Your task to perform on an android device: What's the weather going to be tomorrow? Image 0: 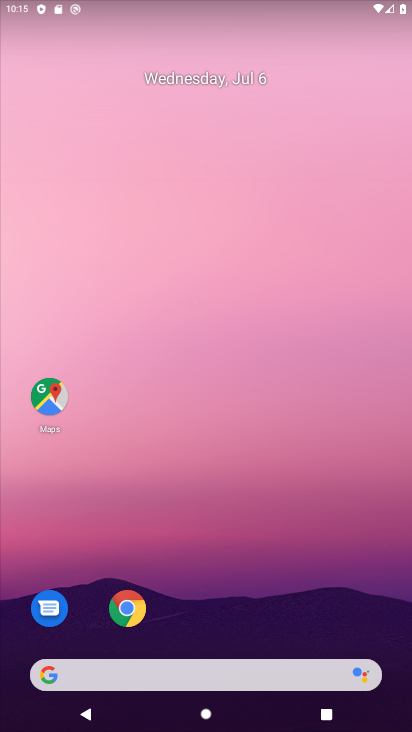
Step 0: click (257, 665)
Your task to perform on an android device: What's the weather going to be tomorrow? Image 1: 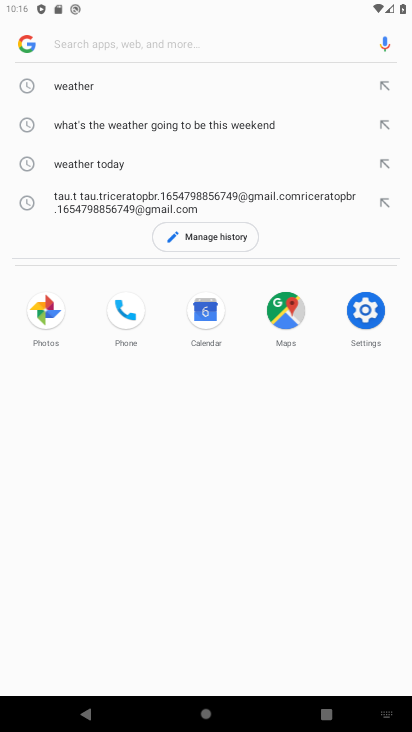
Step 1: click (214, 74)
Your task to perform on an android device: What's the weather going to be tomorrow? Image 2: 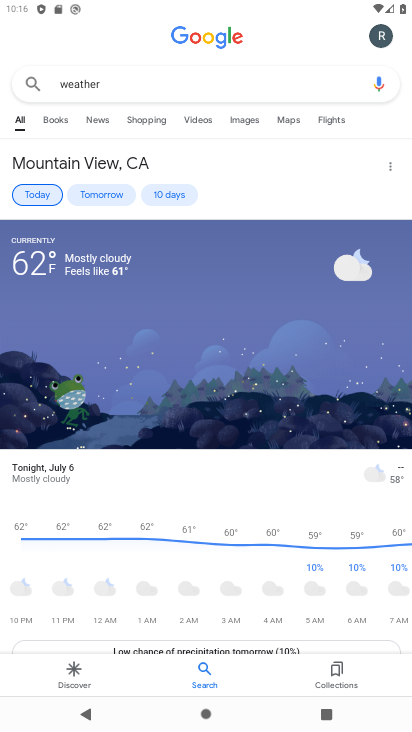
Step 2: task complete